Your task to perform on an android device: turn on priority inbox in the gmail app Image 0: 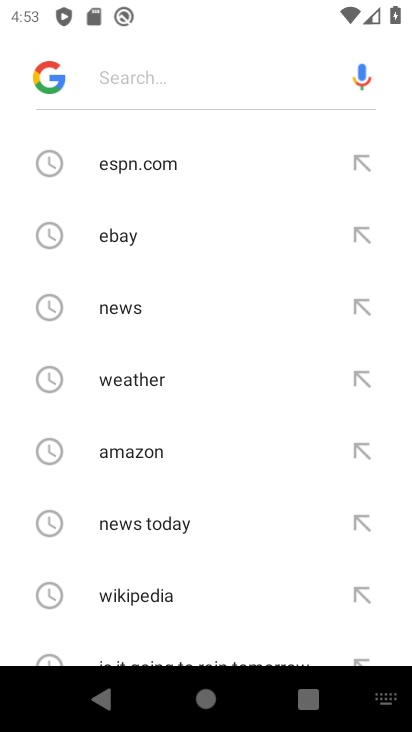
Step 0: press home button
Your task to perform on an android device: turn on priority inbox in the gmail app Image 1: 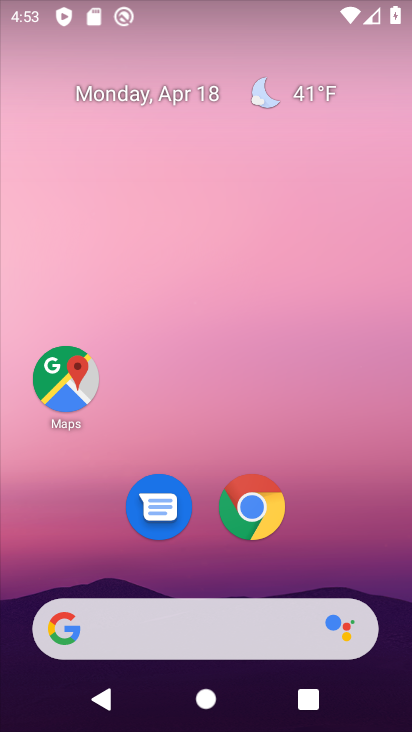
Step 1: drag from (308, 68) to (310, 2)
Your task to perform on an android device: turn on priority inbox in the gmail app Image 2: 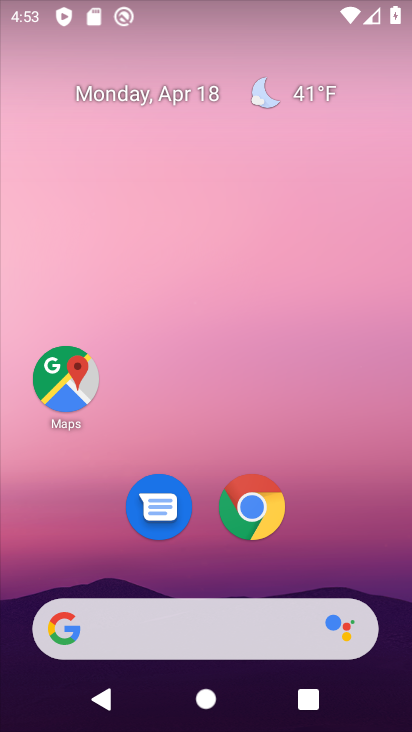
Step 2: drag from (317, 527) to (385, 10)
Your task to perform on an android device: turn on priority inbox in the gmail app Image 3: 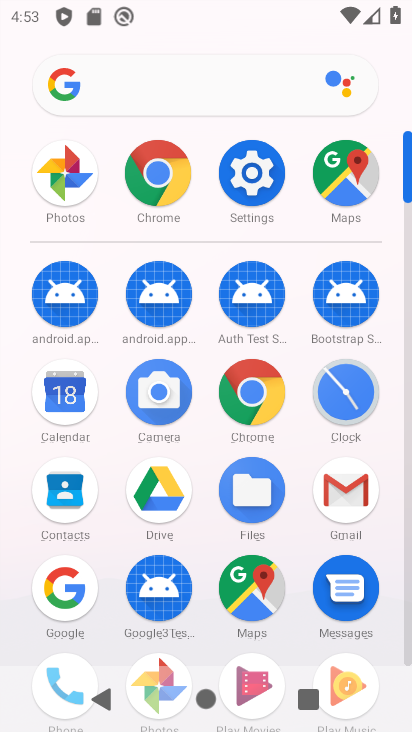
Step 3: click (352, 493)
Your task to perform on an android device: turn on priority inbox in the gmail app Image 4: 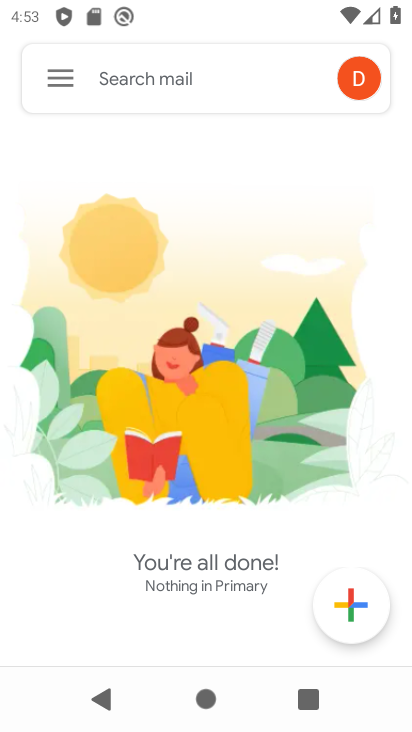
Step 4: click (64, 68)
Your task to perform on an android device: turn on priority inbox in the gmail app Image 5: 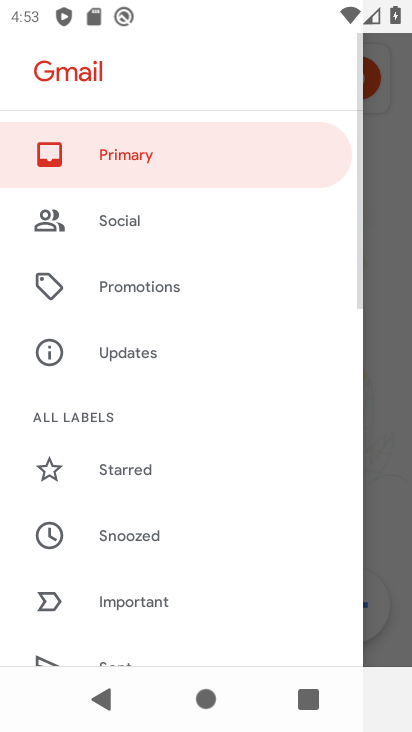
Step 5: drag from (211, 626) to (192, 106)
Your task to perform on an android device: turn on priority inbox in the gmail app Image 6: 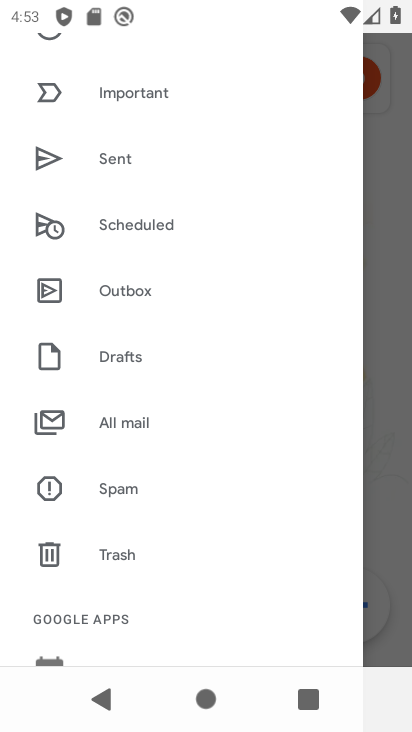
Step 6: drag from (157, 626) to (197, 186)
Your task to perform on an android device: turn on priority inbox in the gmail app Image 7: 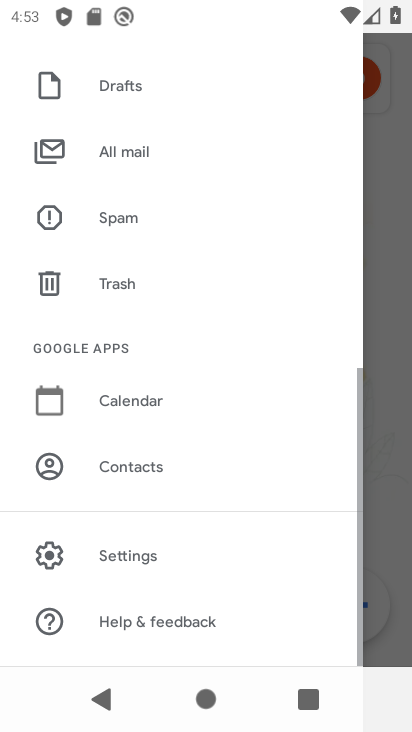
Step 7: click (145, 551)
Your task to perform on an android device: turn on priority inbox in the gmail app Image 8: 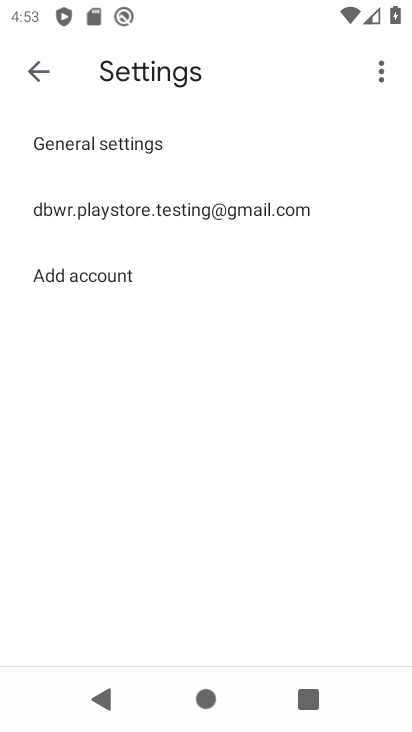
Step 8: click (228, 205)
Your task to perform on an android device: turn on priority inbox in the gmail app Image 9: 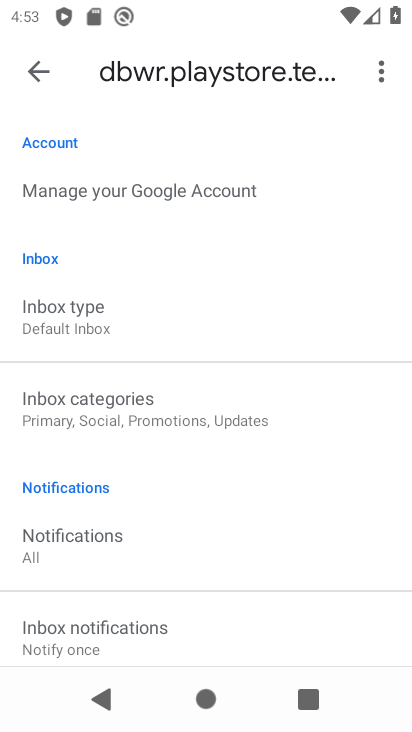
Step 9: click (130, 315)
Your task to perform on an android device: turn on priority inbox in the gmail app Image 10: 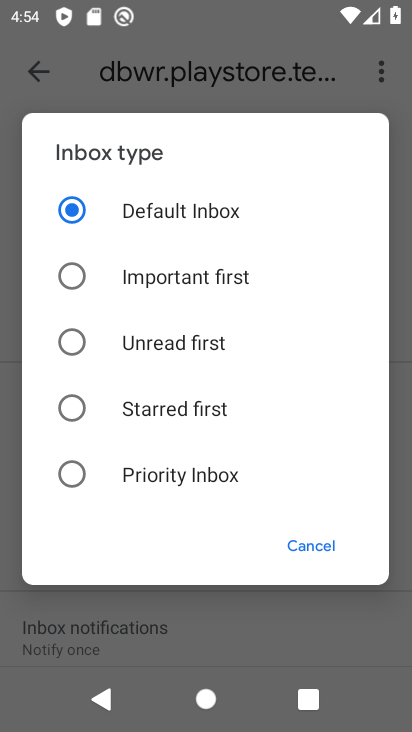
Step 10: click (159, 473)
Your task to perform on an android device: turn on priority inbox in the gmail app Image 11: 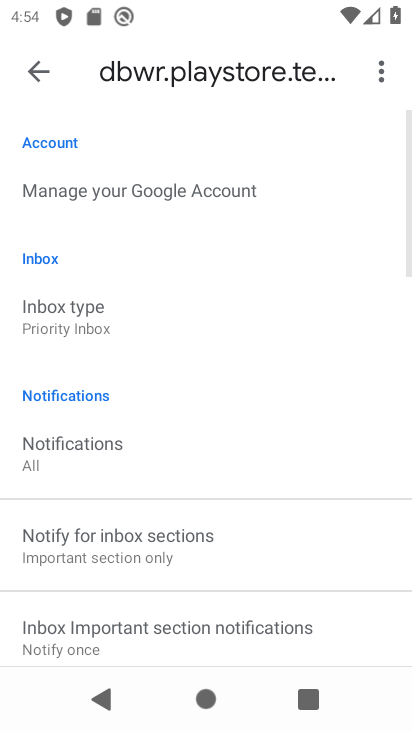
Step 11: task complete